Your task to perform on an android device: Add "apple airpods pro" to the cart on bestbuy, then select checkout. Image 0: 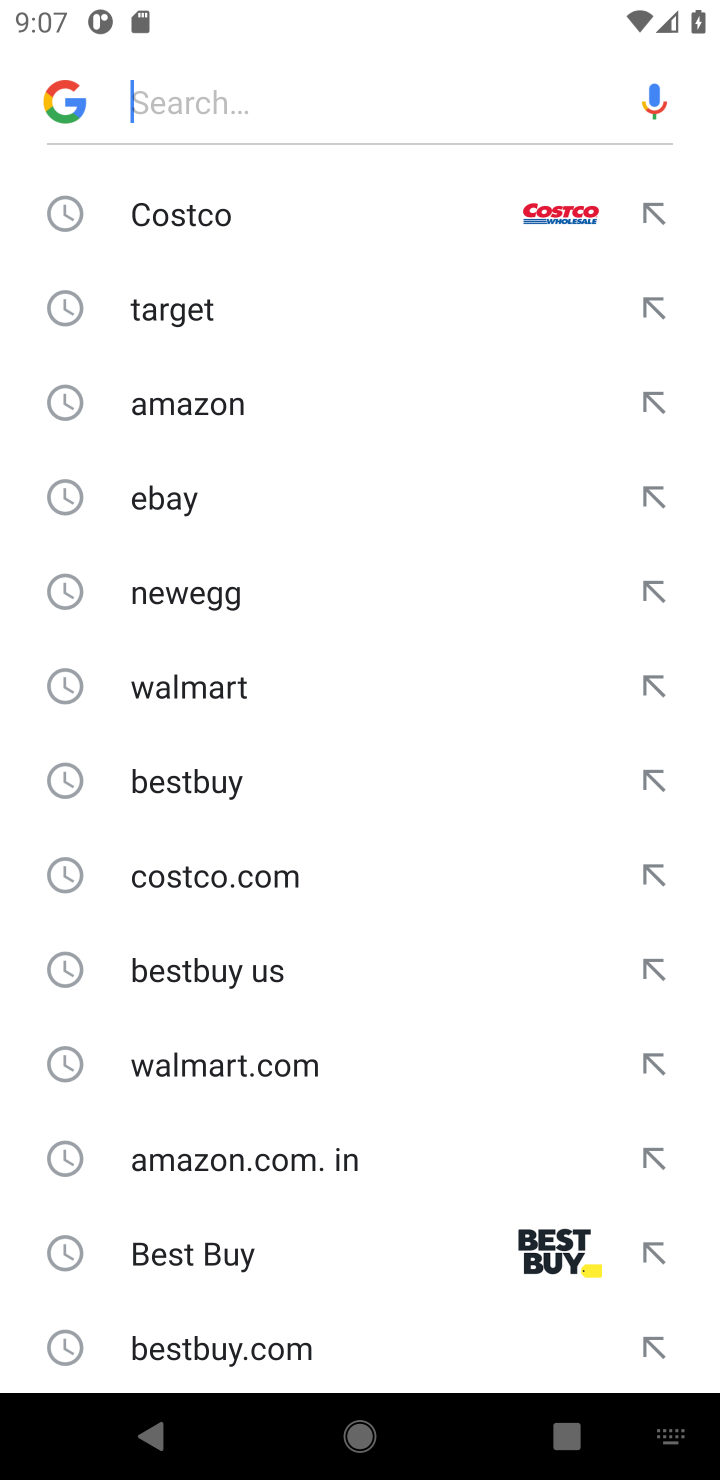
Step 0: click (131, 118)
Your task to perform on an android device: Add "apple airpods pro" to the cart on bestbuy, then select checkout. Image 1: 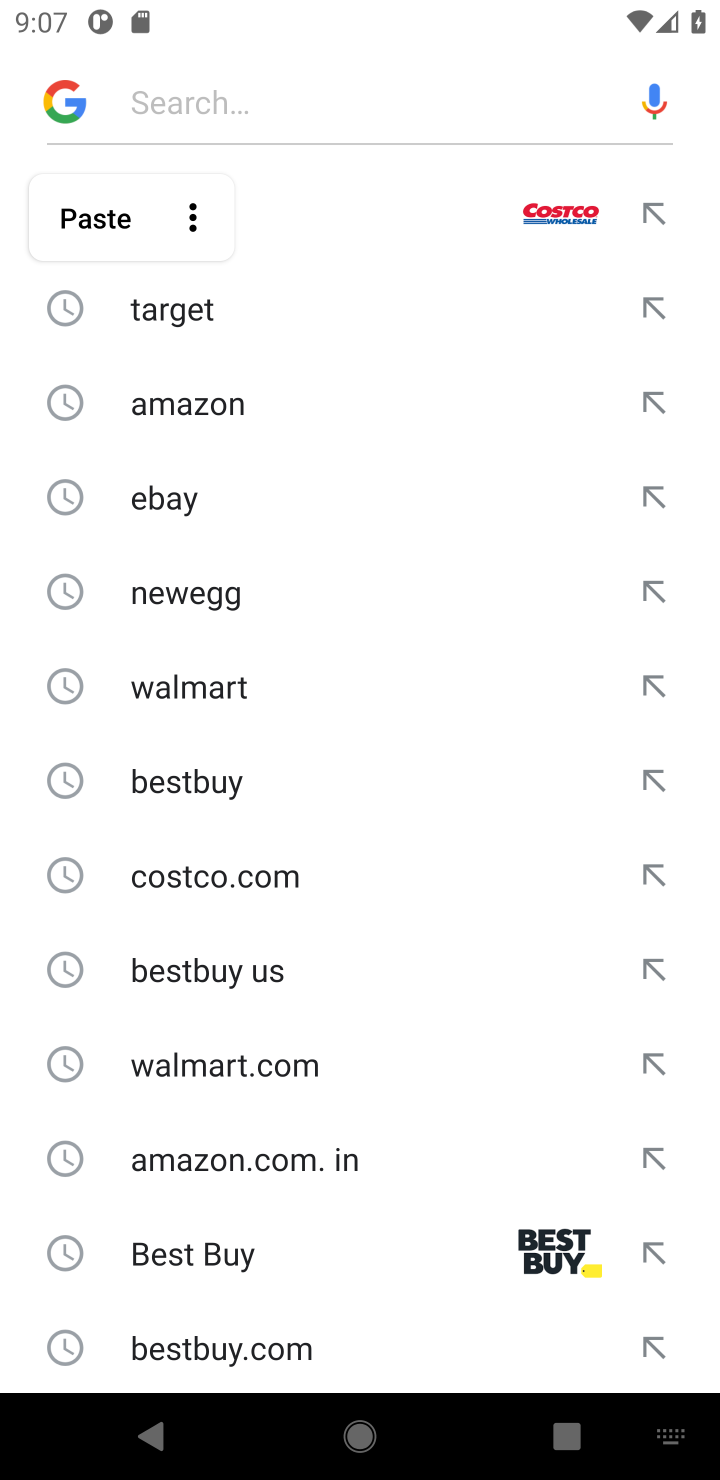
Step 1: type "bestbuy.com"
Your task to perform on an android device: Add "apple airpods pro" to the cart on bestbuy, then select checkout. Image 2: 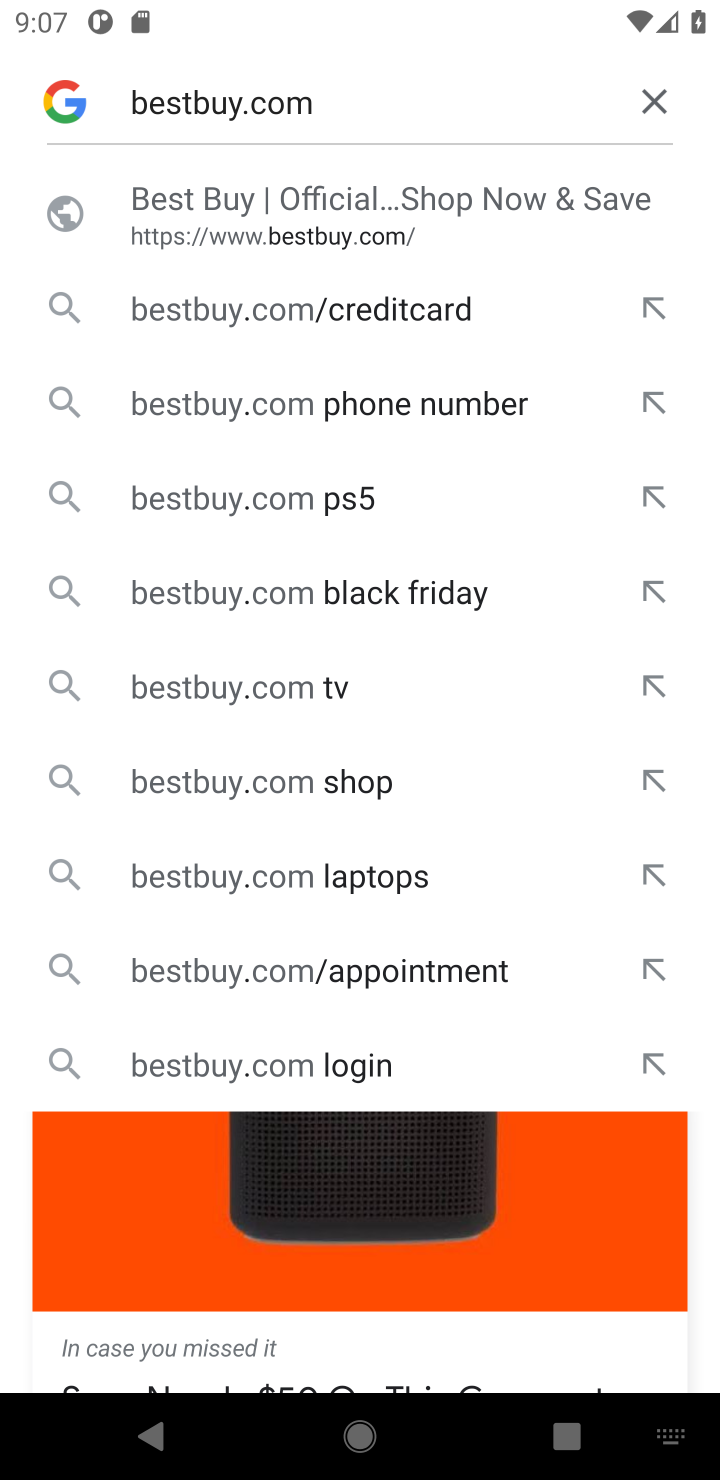
Step 2: click (173, 248)
Your task to perform on an android device: Add "apple airpods pro" to the cart on bestbuy, then select checkout. Image 3: 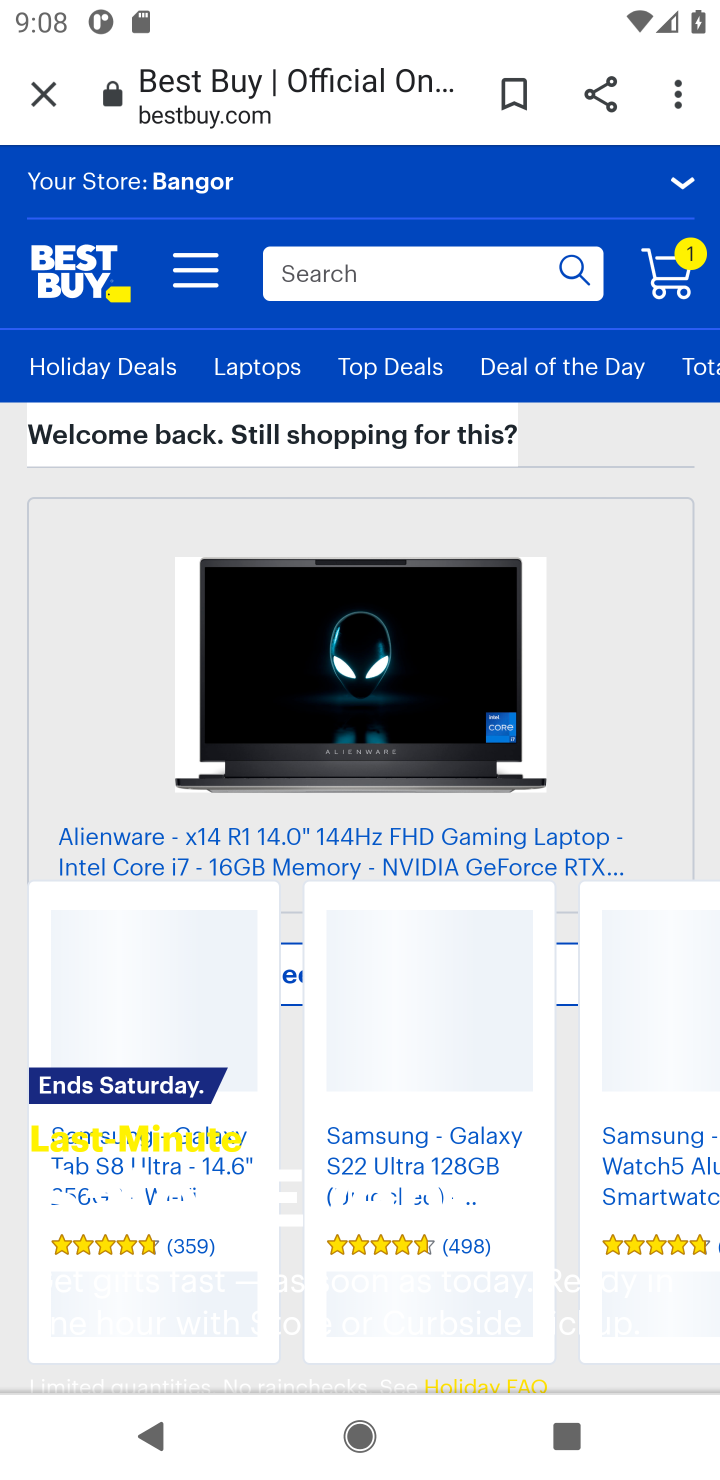
Step 3: click (376, 281)
Your task to perform on an android device: Add "apple airpods pro" to the cart on bestbuy, then select checkout. Image 4: 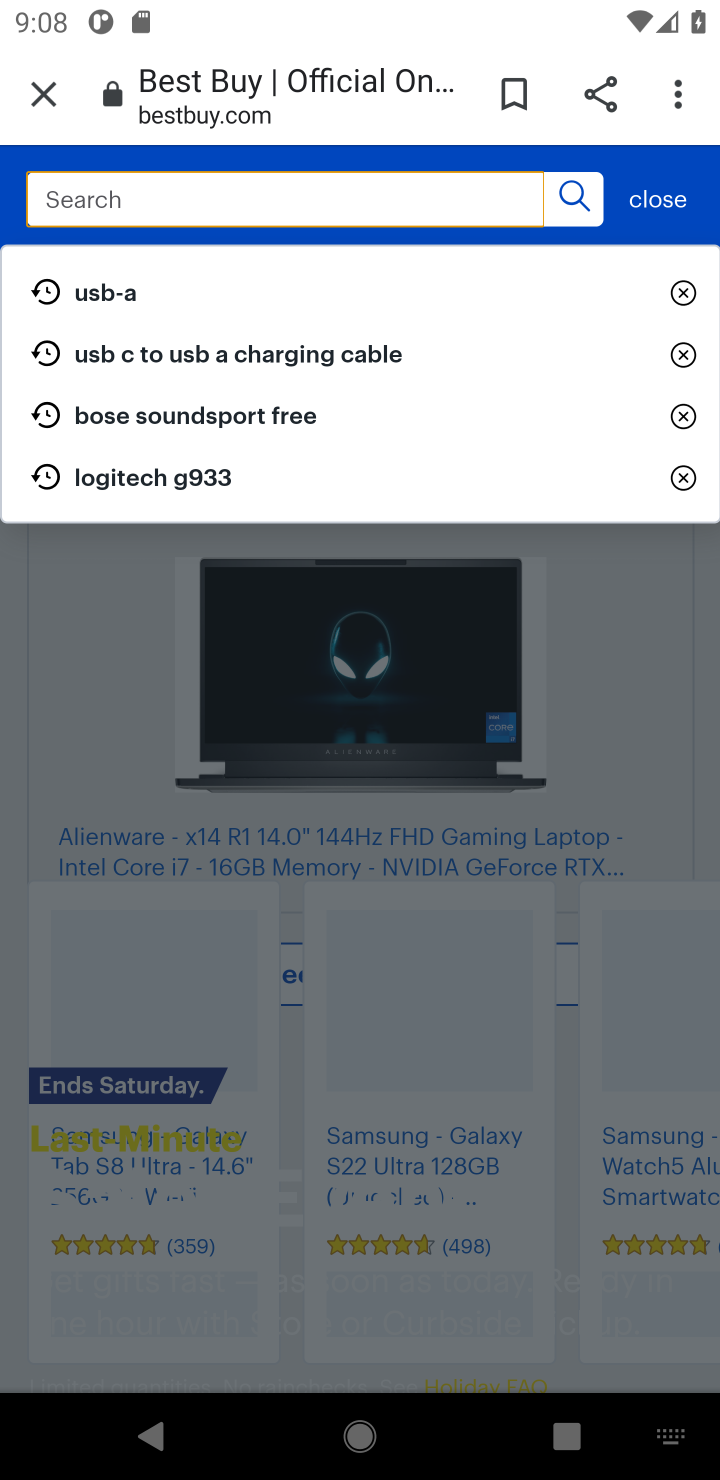
Step 4: type "apple airpods pro"
Your task to perform on an android device: Add "apple airpods pro" to the cart on bestbuy, then select checkout. Image 5: 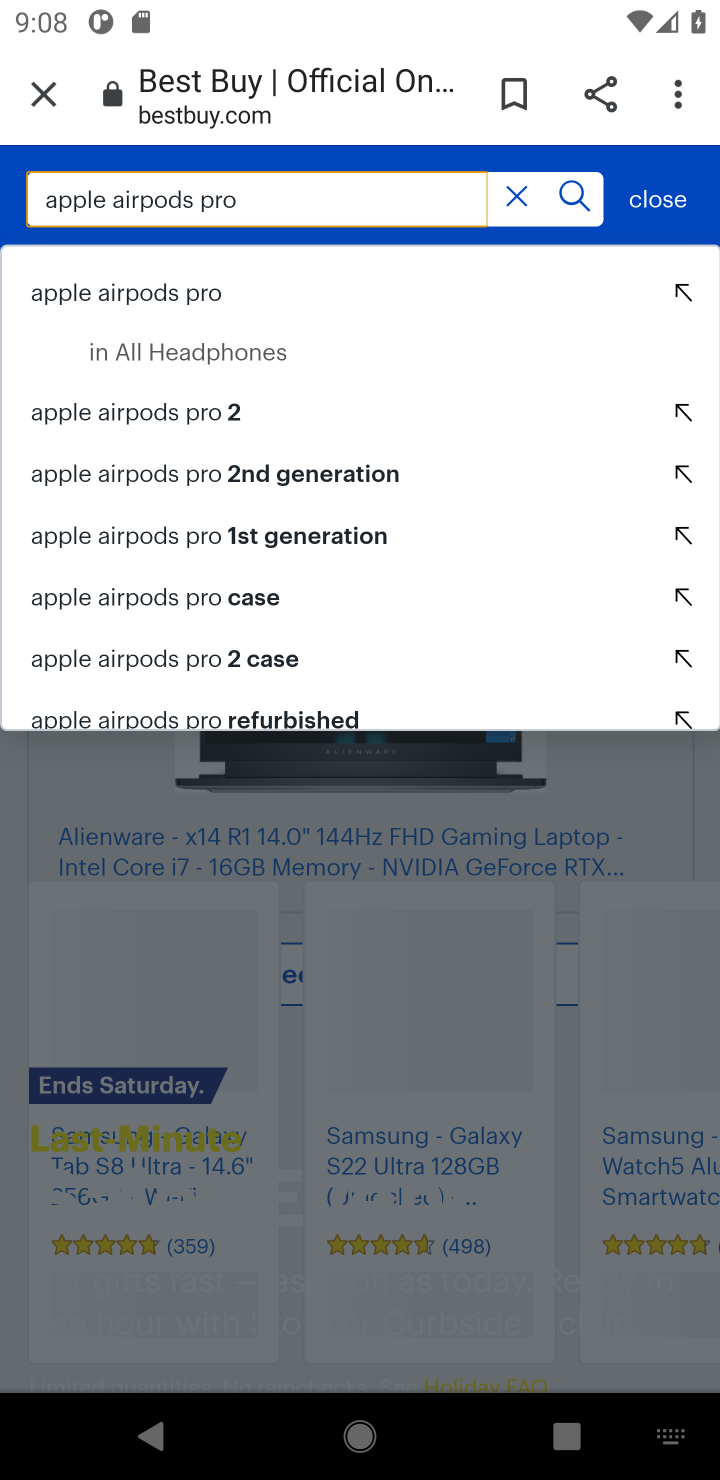
Step 5: click (155, 302)
Your task to perform on an android device: Add "apple airpods pro" to the cart on bestbuy, then select checkout. Image 6: 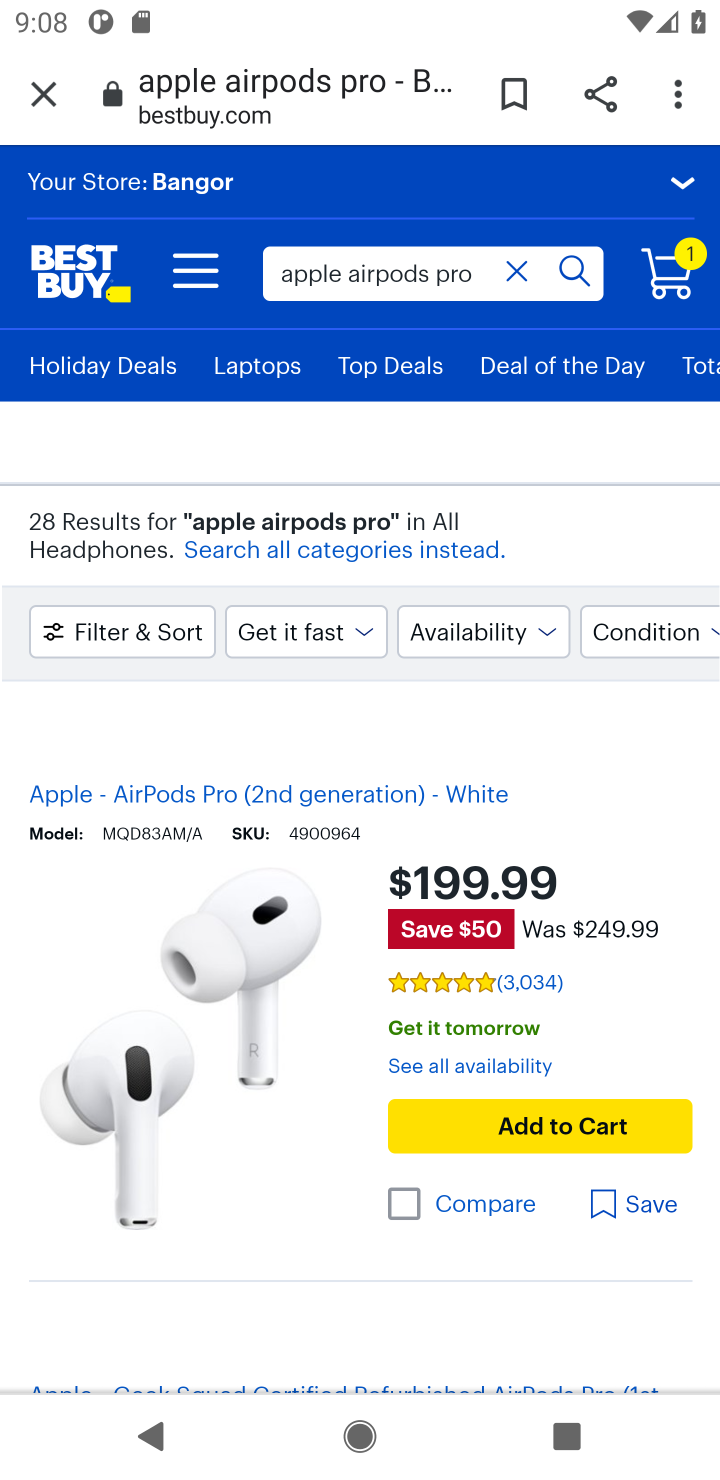
Step 6: click (549, 1135)
Your task to perform on an android device: Add "apple airpods pro" to the cart on bestbuy, then select checkout. Image 7: 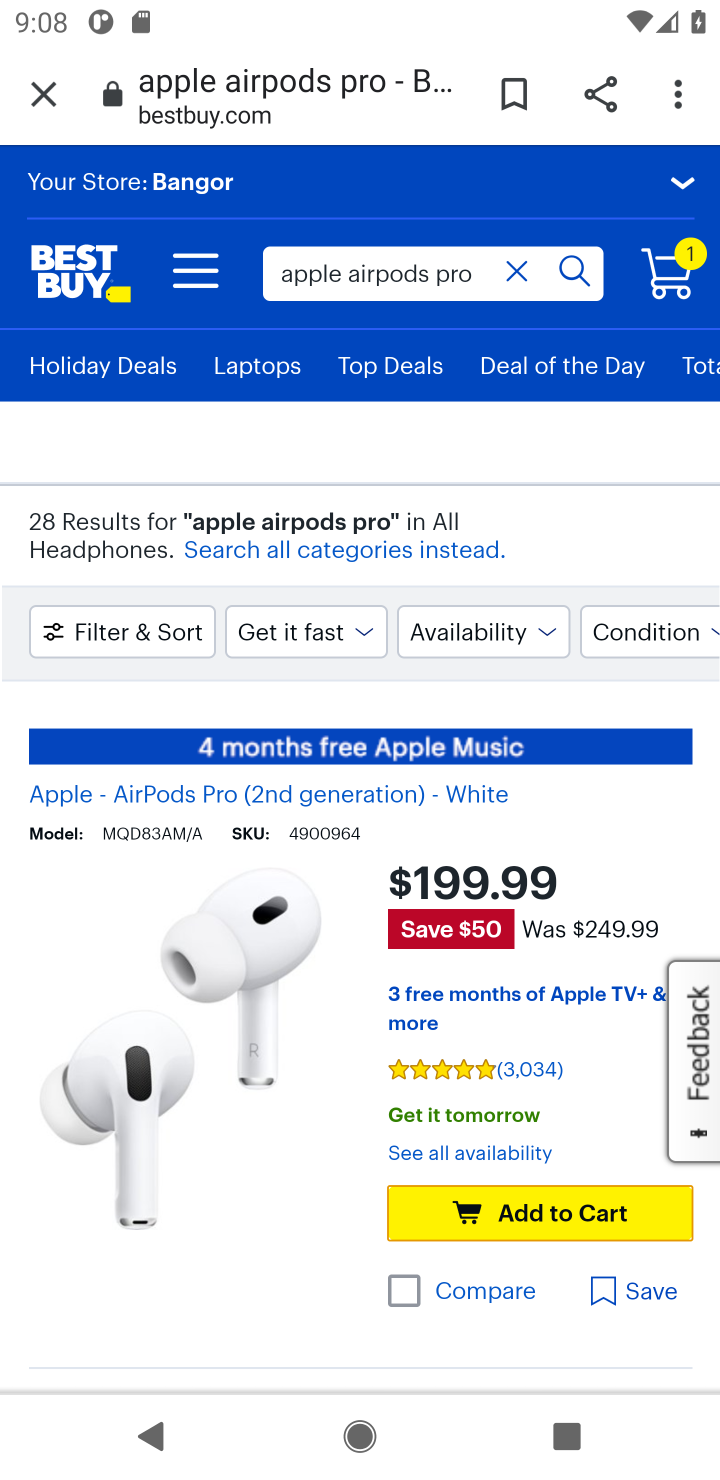
Step 7: click (508, 1216)
Your task to perform on an android device: Add "apple airpods pro" to the cart on bestbuy, then select checkout. Image 8: 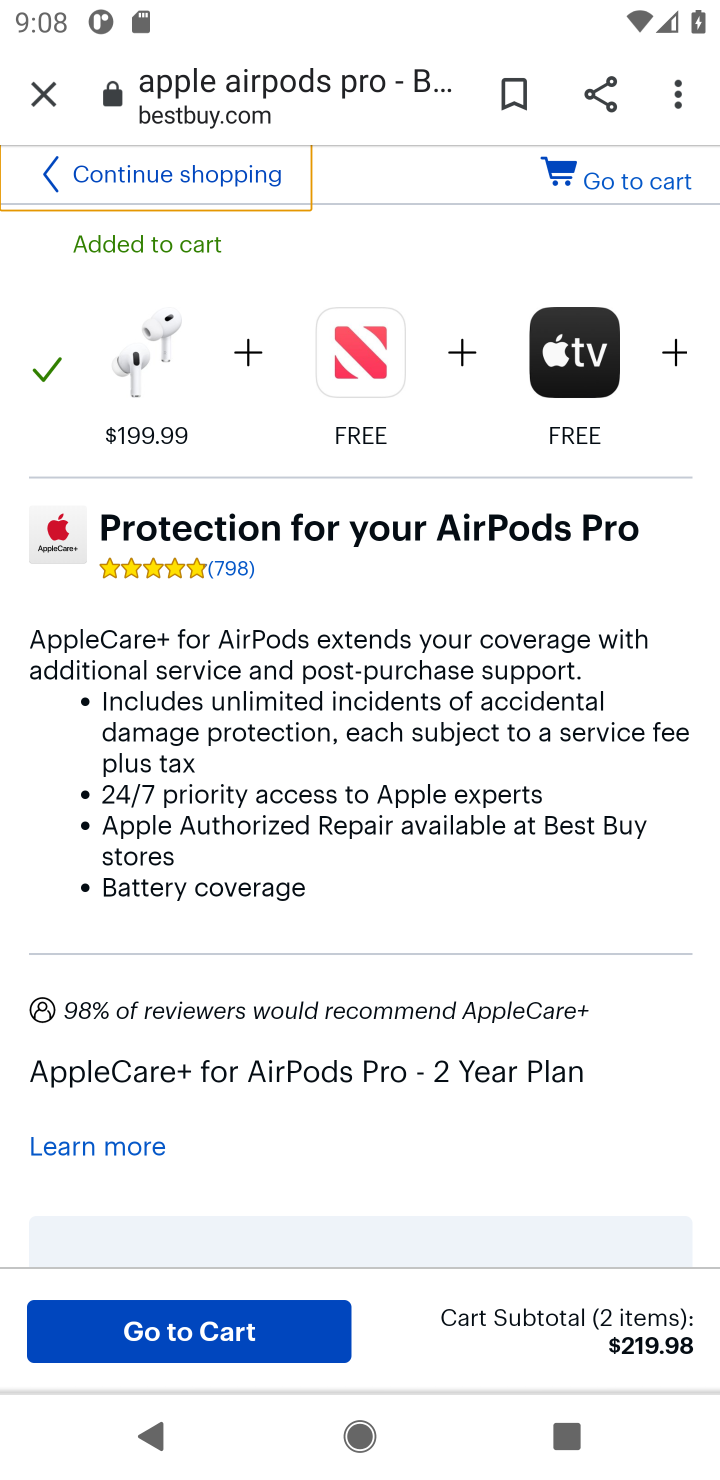
Step 8: click (638, 176)
Your task to perform on an android device: Add "apple airpods pro" to the cart on bestbuy, then select checkout. Image 9: 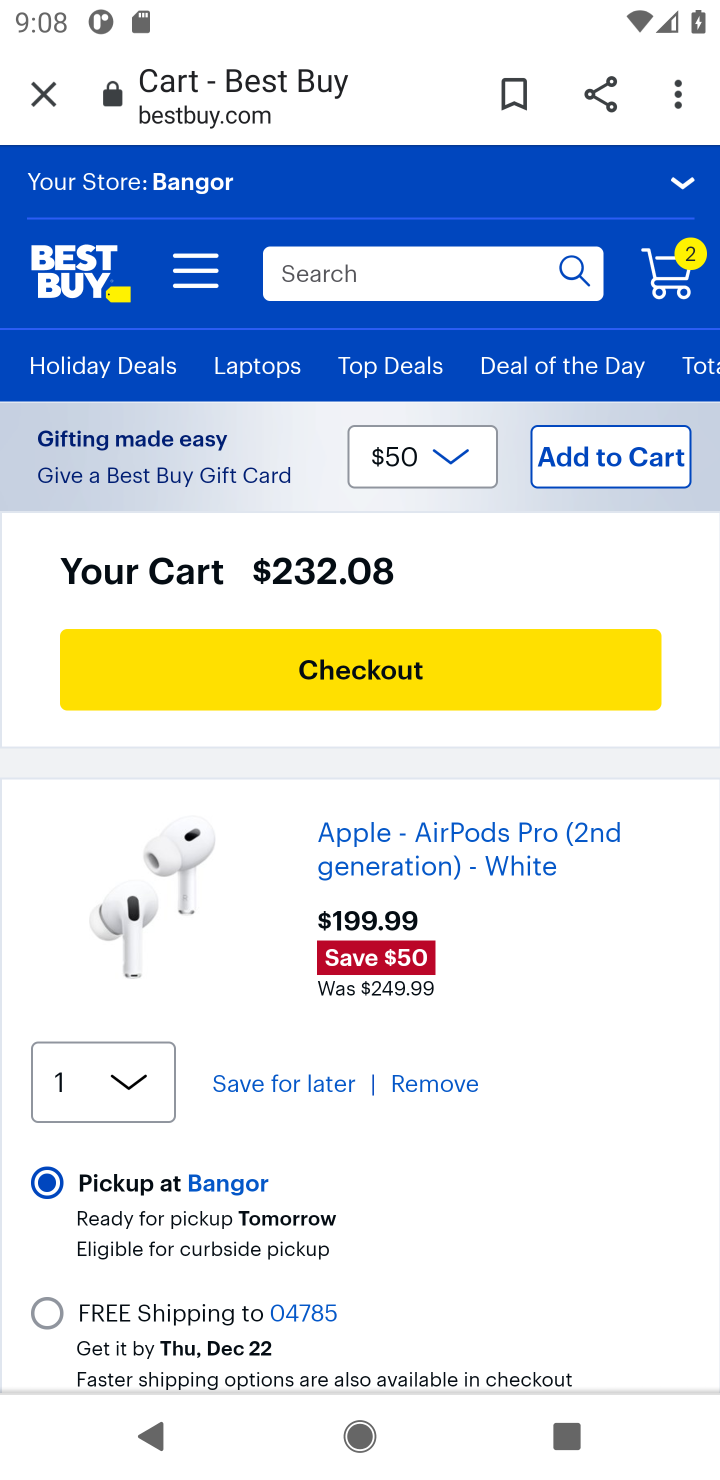
Step 9: click (357, 669)
Your task to perform on an android device: Add "apple airpods pro" to the cart on bestbuy, then select checkout. Image 10: 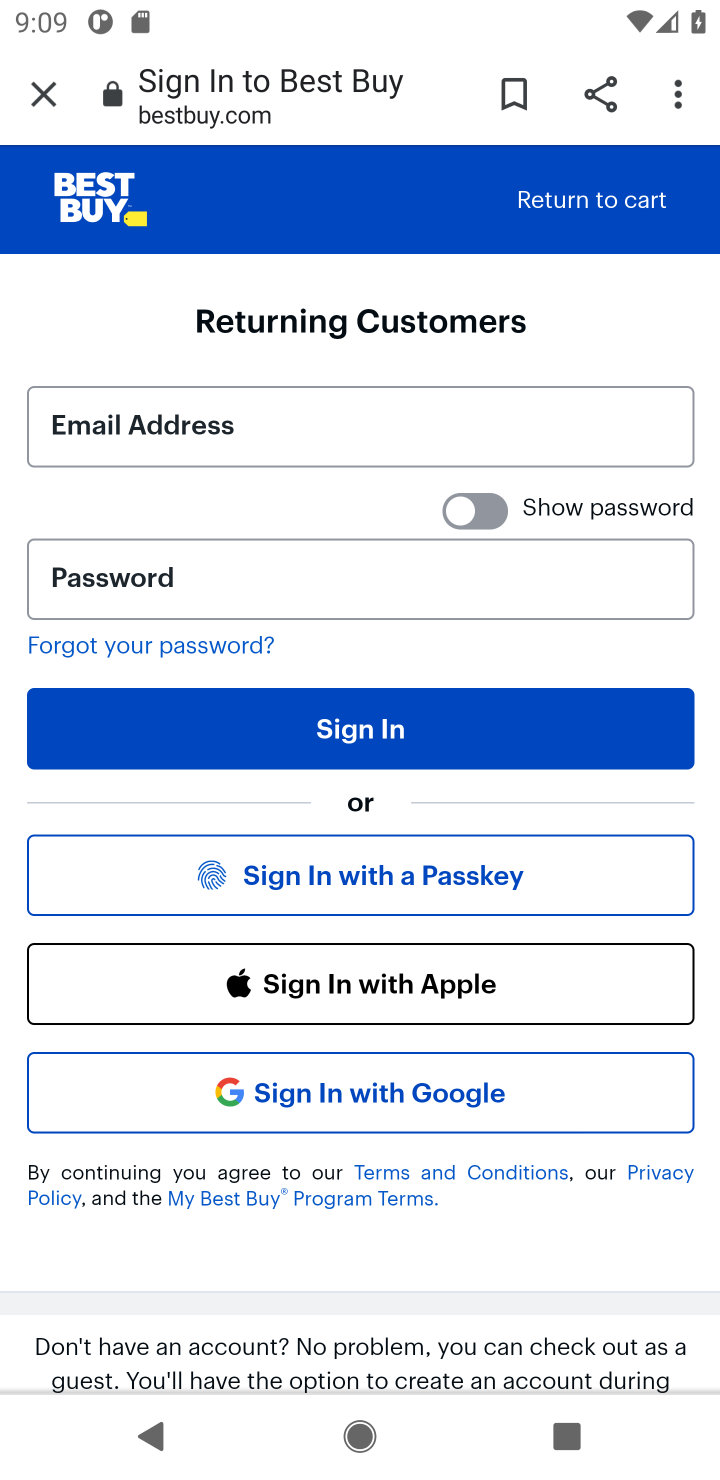
Step 10: task complete